Your task to perform on an android device: turn on bluetooth scan Image 0: 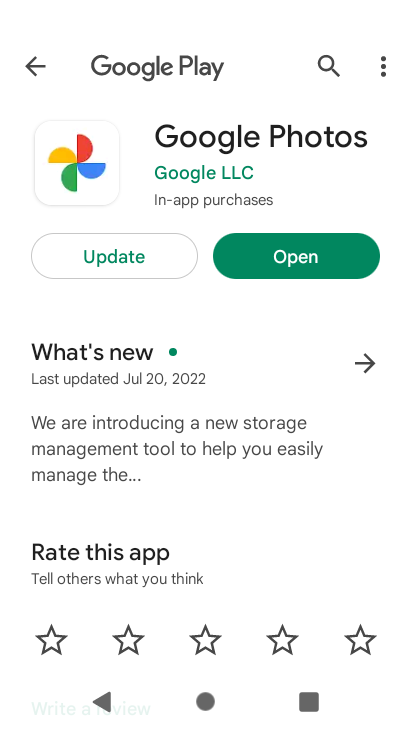
Step 0: press home button
Your task to perform on an android device: turn on bluetooth scan Image 1: 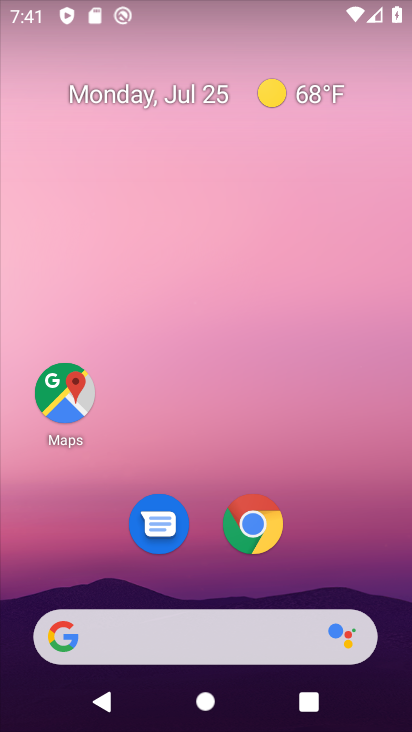
Step 1: drag from (323, 549) to (332, 53)
Your task to perform on an android device: turn on bluetooth scan Image 2: 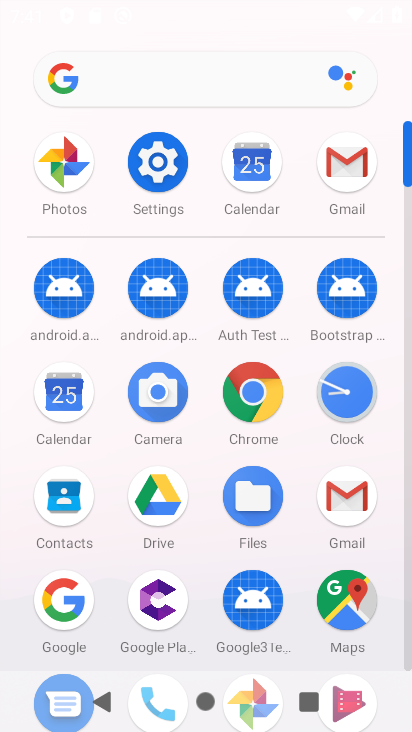
Step 2: click (170, 149)
Your task to perform on an android device: turn on bluetooth scan Image 3: 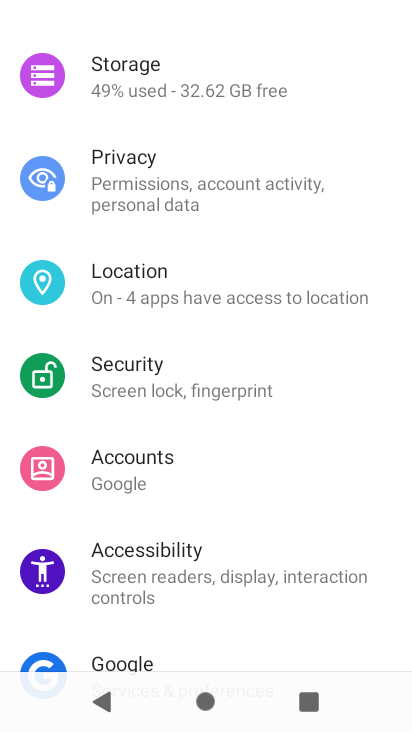
Step 3: click (195, 294)
Your task to perform on an android device: turn on bluetooth scan Image 4: 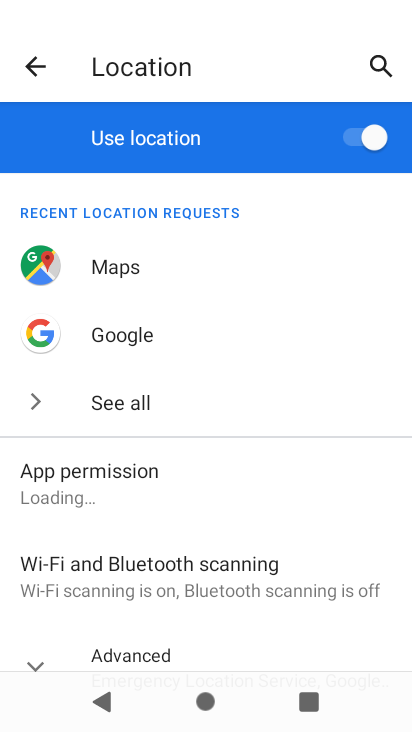
Step 4: click (237, 561)
Your task to perform on an android device: turn on bluetooth scan Image 5: 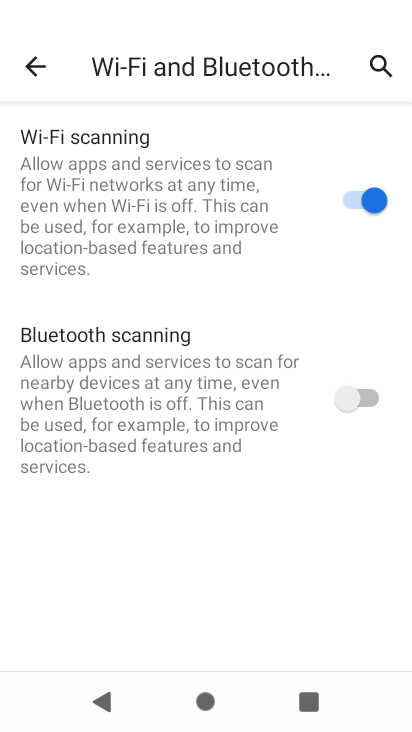
Step 5: click (364, 391)
Your task to perform on an android device: turn on bluetooth scan Image 6: 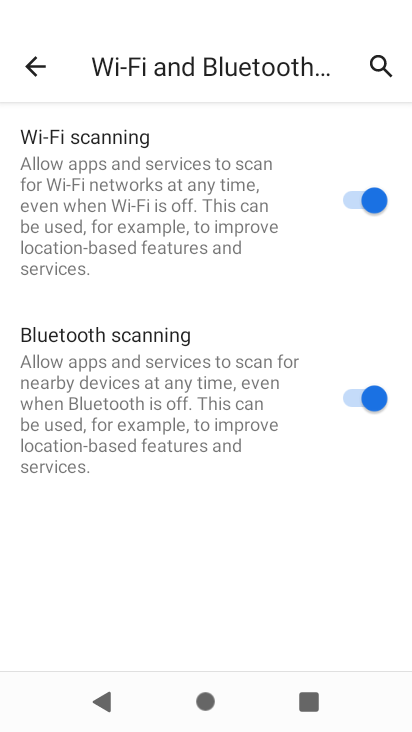
Step 6: task complete